Your task to perform on an android device: turn on the 24-hour format for clock Image 0: 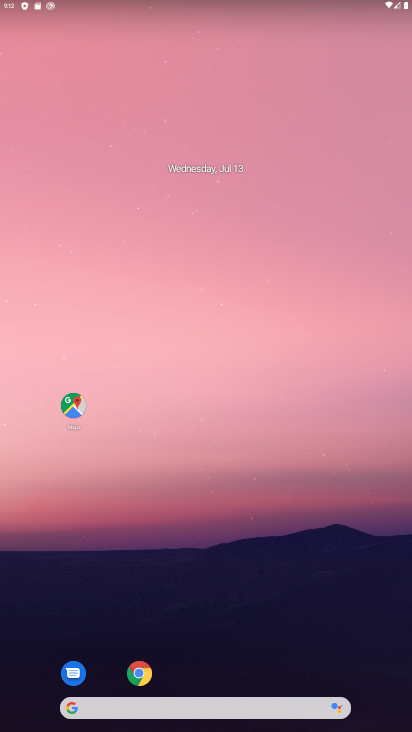
Step 0: drag from (222, 677) to (226, 191)
Your task to perform on an android device: turn on the 24-hour format for clock Image 1: 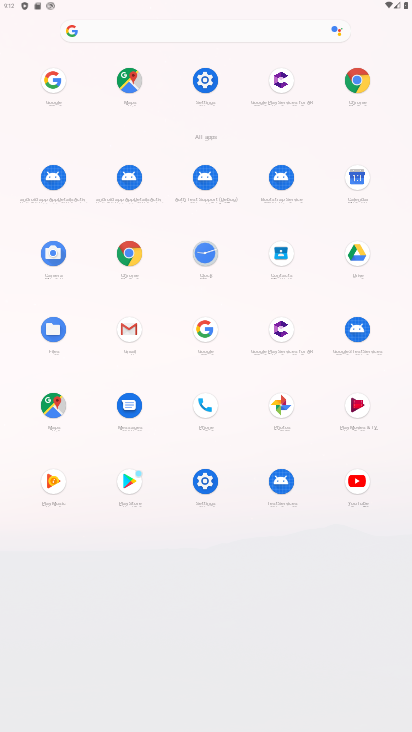
Step 1: click (200, 238)
Your task to perform on an android device: turn on the 24-hour format for clock Image 2: 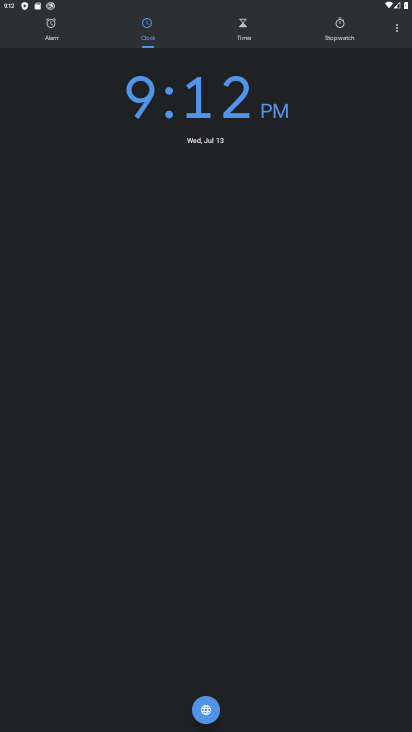
Step 2: press home button
Your task to perform on an android device: turn on the 24-hour format for clock Image 3: 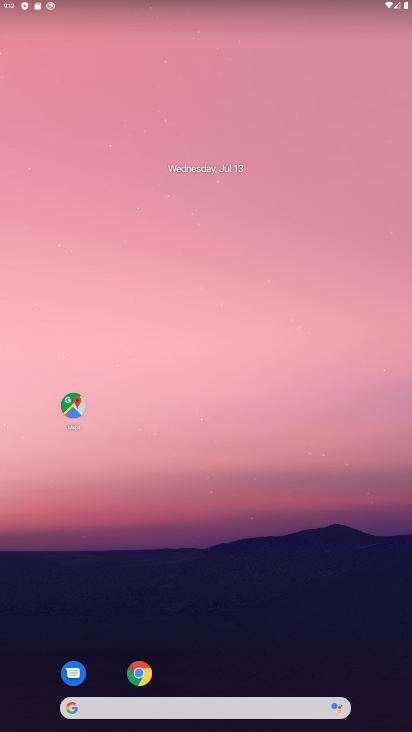
Step 3: drag from (208, 654) to (193, 121)
Your task to perform on an android device: turn on the 24-hour format for clock Image 4: 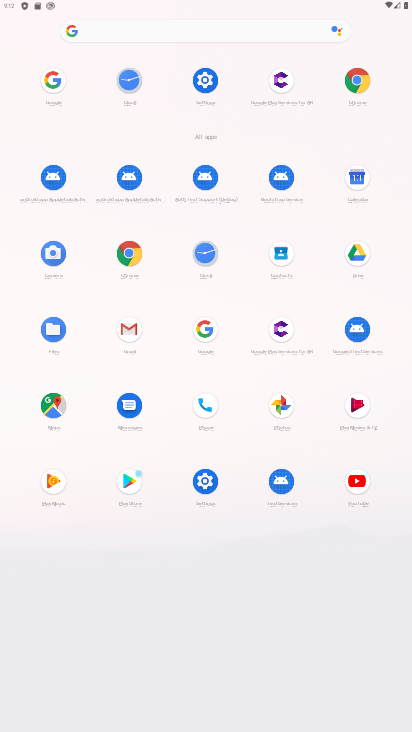
Step 4: click (115, 82)
Your task to perform on an android device: turn on the 24-hour format for clock Image 5: 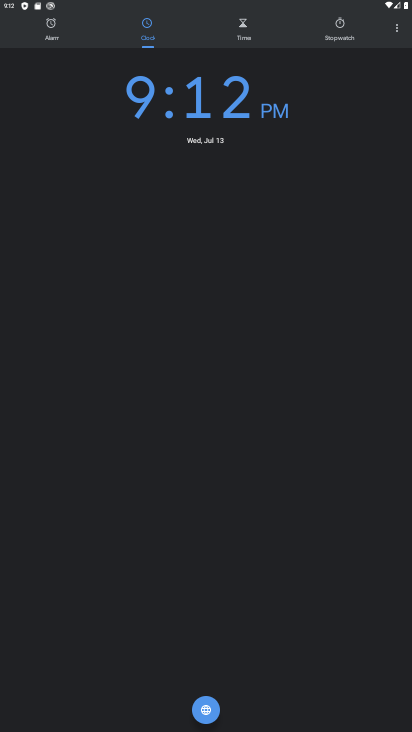
Step 5: click (395, 28)
Your task to perform on an android device: turn on the 24-hour format for clock Image 6: 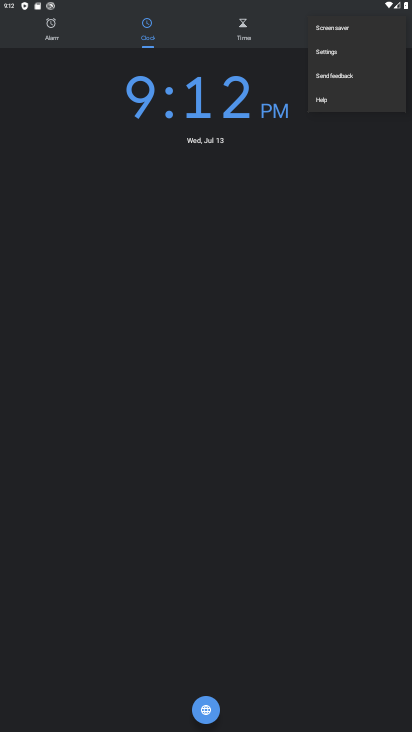
Step 6: click (341, 56)
Your task to perform on an android device: turn on the 24-hour format for clock Image 7: 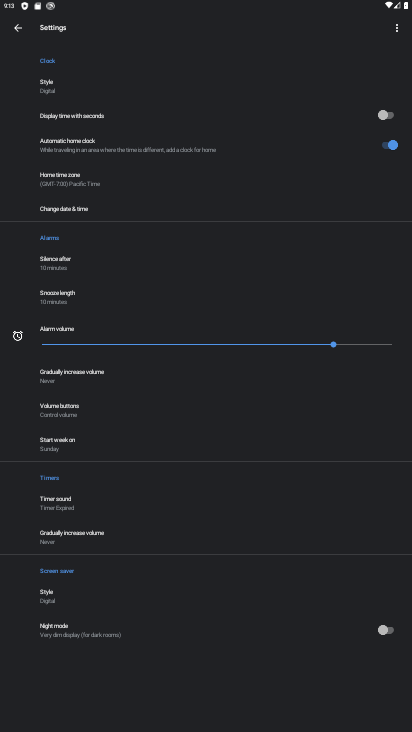
Step 7: click (82, 213)
Your task to perform on an android device: turn on the 24-hour format for clock Image 8: 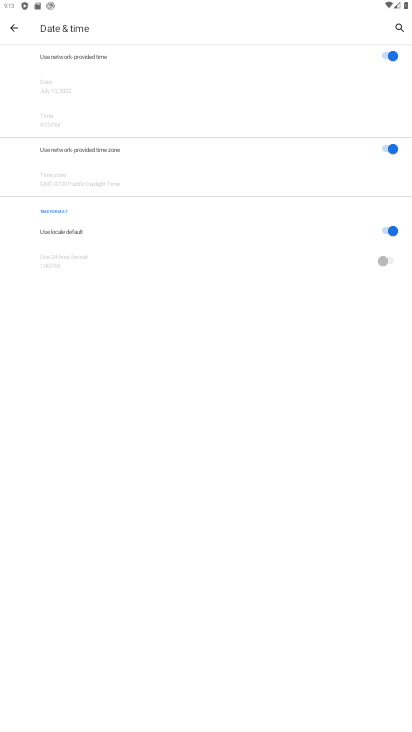
Step 8: click (381, 230)
Your task to perform on an android device: turn on the 24-hour format for clock Image 9: 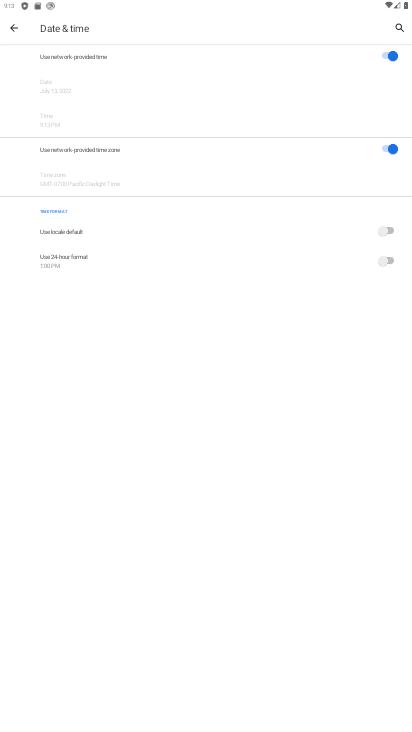
Step 9: click (389, 262)
Your task to perform on an android device: turn on the 24-hour format for clock Image 10: 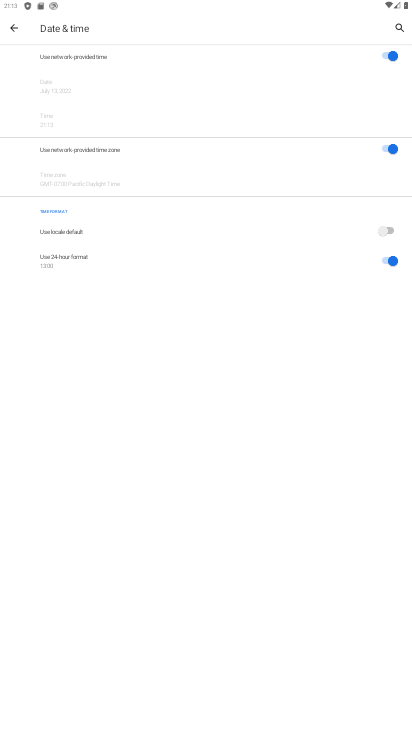
Step 10: task complete